Your task to perform on an android device: What is the recent news? Image 0: 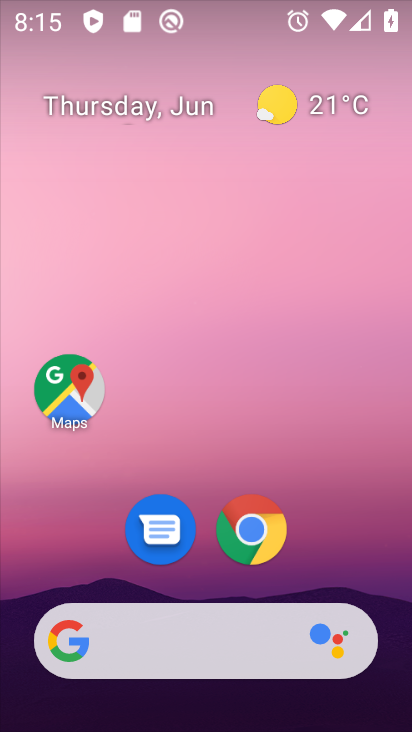
Step 0: drag from (9, 258) to (411, 264)
Your task to perform on an android device: What is the recent news? Image 1: 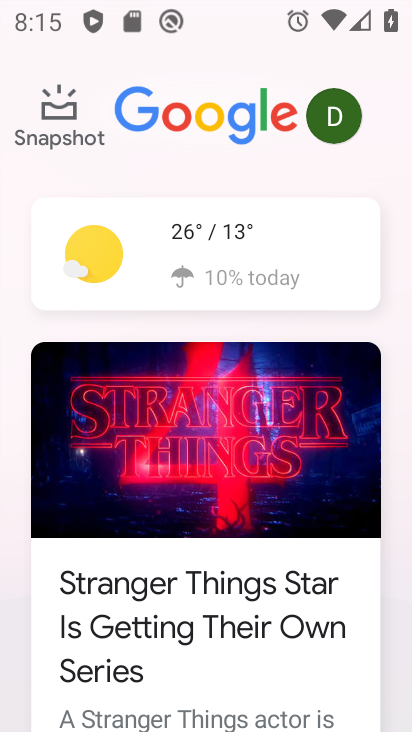
Step 1: task complete